Your task to perform on an android device: turn on data saver in the chrome app Image 0: 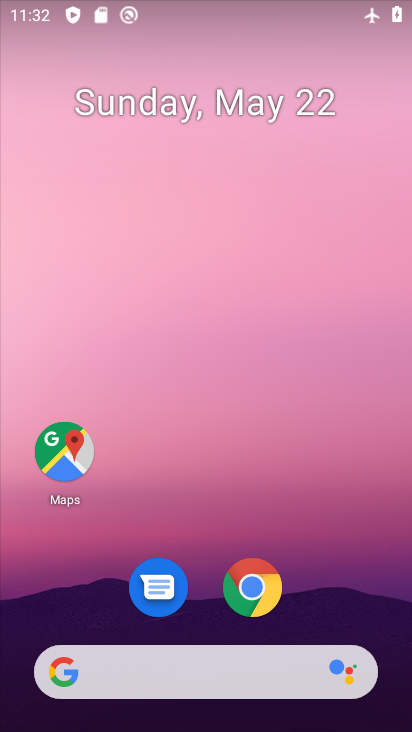
Step 0: click (242, 570)
Your task to perform on an android device: turn on data saver in the chrome app Image 1: 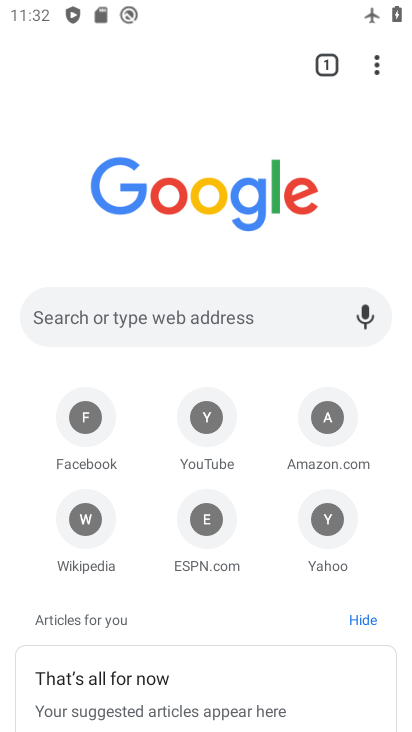
Step 1: click (375, 70)
Your task to perform on an android device: turn on data saver in the chrome app Image 2: 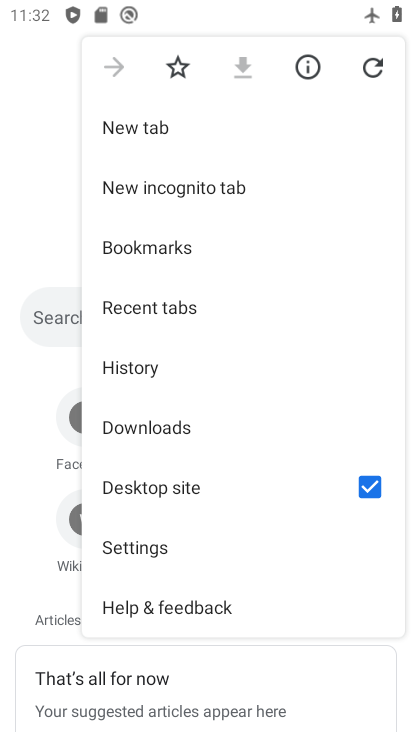
Step 2: click (149, 536)
Your task to perform on an android device: turn on data saver in the chrome app Image 3: 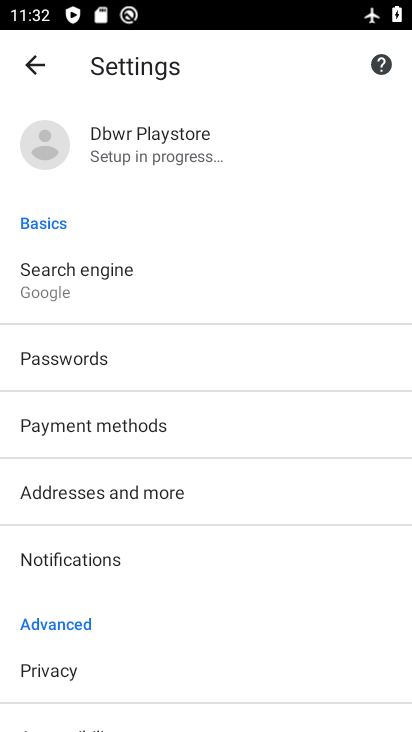
Step 3: drag from (134, 587) to (72, 312)
Your task to perform on an android device: turn on data saver in the chrome app Image 4: 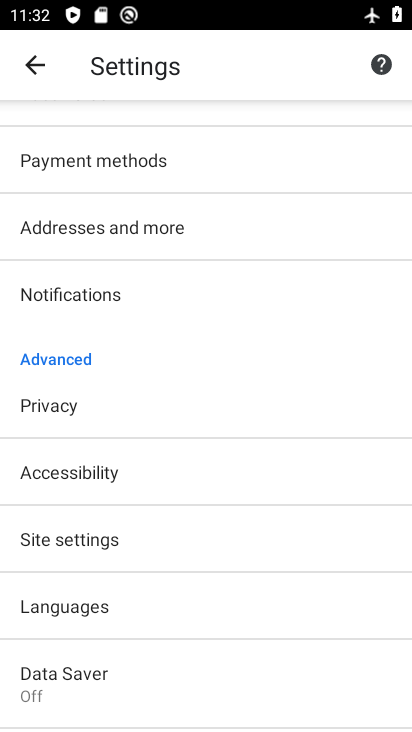
Step 4: click (25, 689)
Your task to perform on an android device: turn on data saver in the chrome app Image 5: 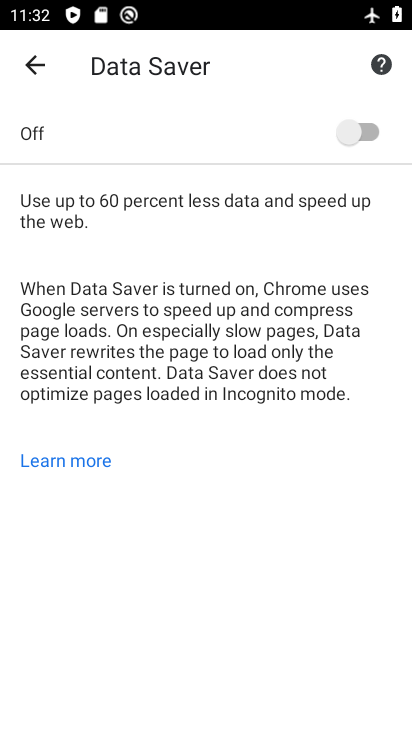
Step 5: click (357, 144)
Your task to perform on an android device: turn on data saver in the chrome app Image 6: 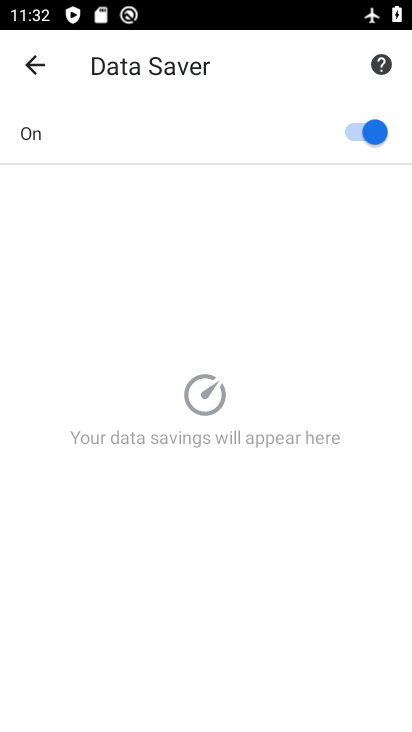
Step 6: task complete